Your task to perform on an android device: toggle data saver in the chrome app Image 0: 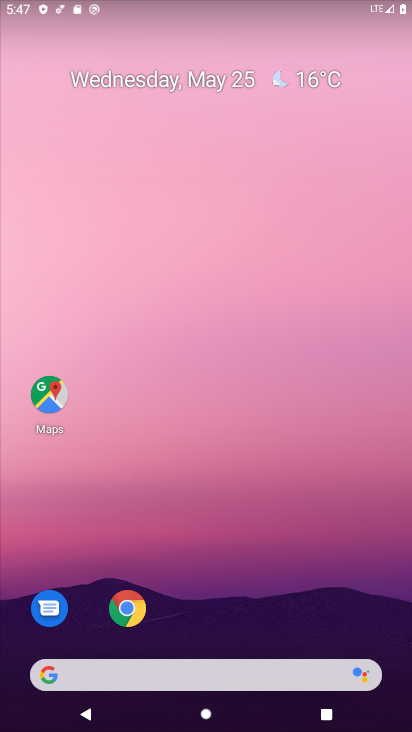
Step 0: drag from (261, 661) to (280, 16)
Your task to perform on an android device: toggle data saver in the chrome app Image 1: 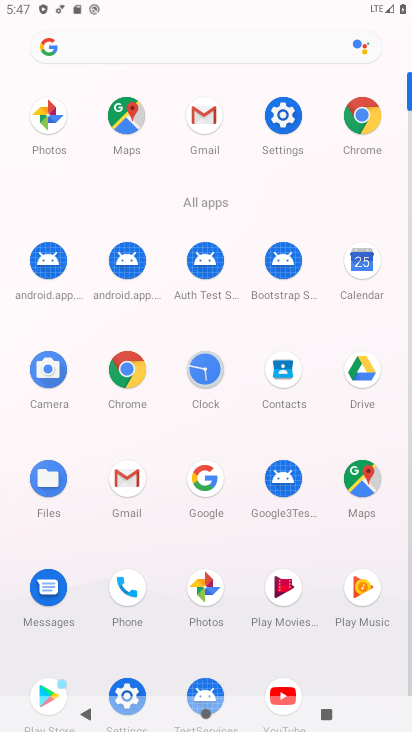
Step 1: click (128, 376)
Your task to perform on an android device: toggle data saver in the chrome app Image 2: 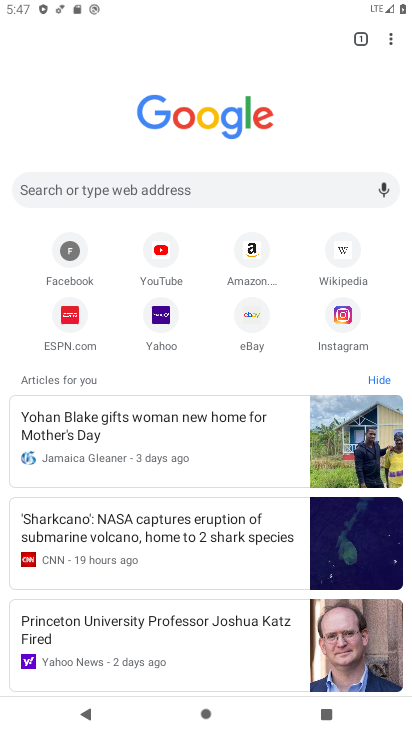
Step 2: drag from (386, 35) to (276, 331)
Your task to perform on an android device: toggle data saver in the chrome app Image 3: 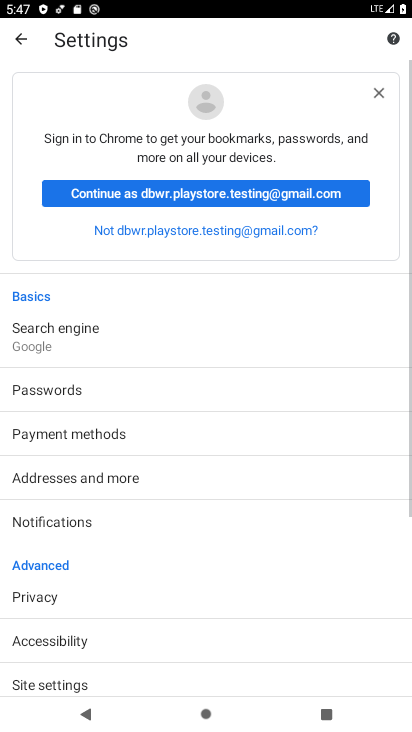
Step 3: drag from (290, 568) to (271, 53)
Your task to perform on an android device: toggle data saver in the chrome app Image 4: 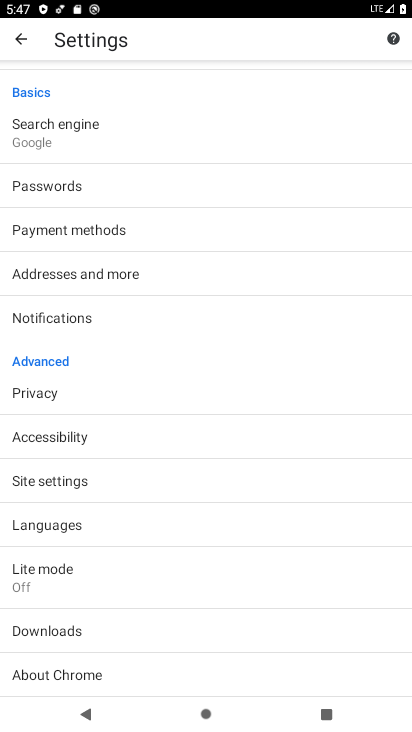
Step 4: click (64, 560)
Your task to perform on an android device: toggle data saver in the chrome app Image 5: 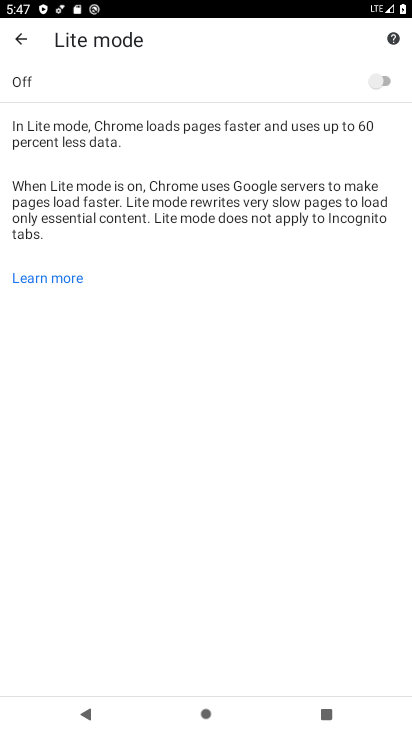
Step 5: click (384, 78)
Your task to perform on an android device: toggle data saver in the chrome app Image 6: 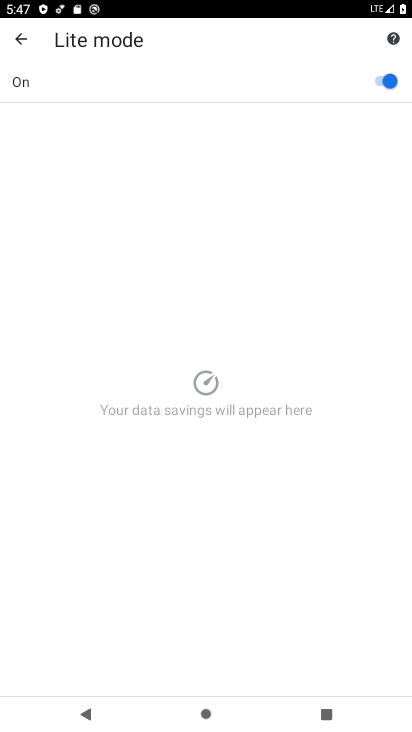
Step 6: task complete